Your task to perform on an android device: Turn on the flashlight Image 0: 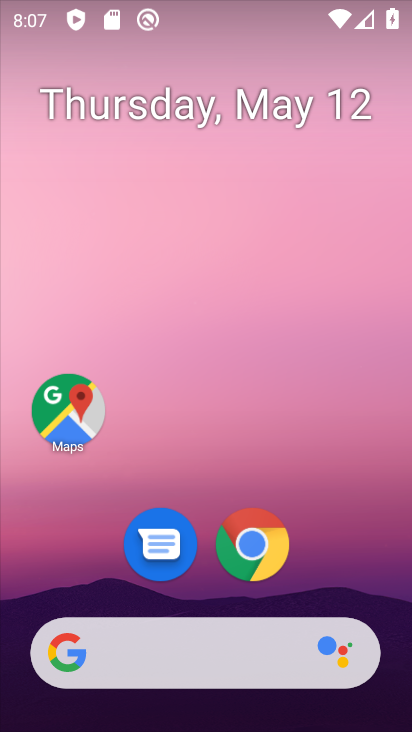
Step 0: drag from (243, 613) to (397, 408)
Your task to perform on an android device: Turn on the flashlight Image 1: 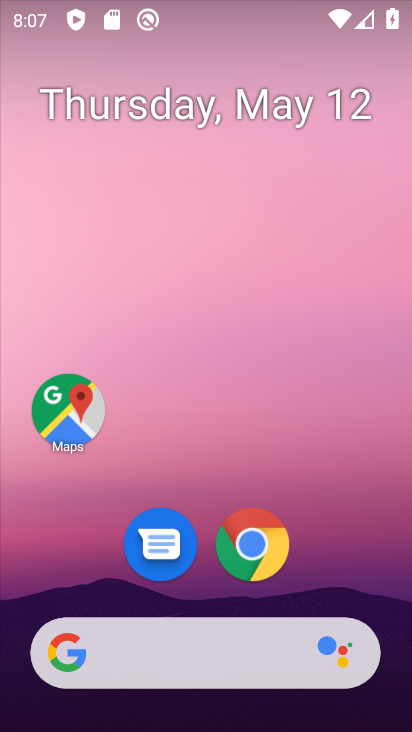
Step 1: click (249, 183)
Your task to perform on an android device: Turn on the flashlight Image 2: 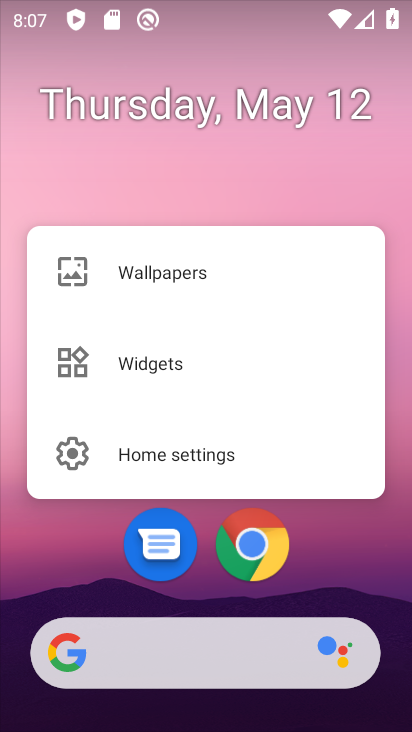
Step 2: drag from (187, 601) to (397, 4)
Your task to perform on an android device: Turn on the flashlight Image 3: 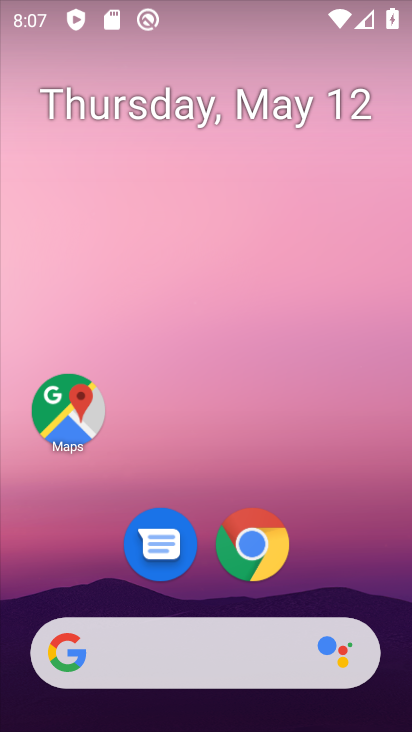
Step 3: drag from (183, 436) to (344, 5)
Your task to perform on an android device: Turn on the flashlight Image 4: 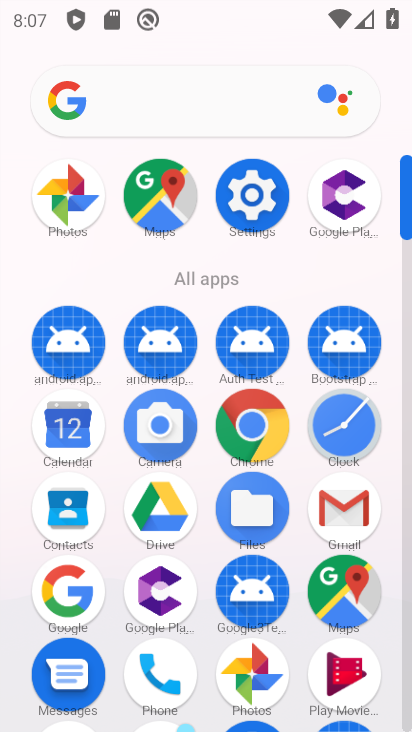
Step 4: click (246, 181)
Your task to perform on an android device: Turn on the flashlight Image 5: 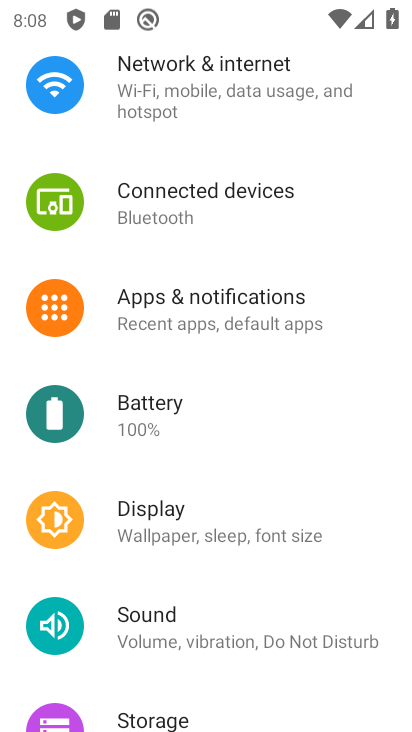
Step 5: task complete